Your task to perform on an android device: Open Chrome and go to the settings page Image 0: 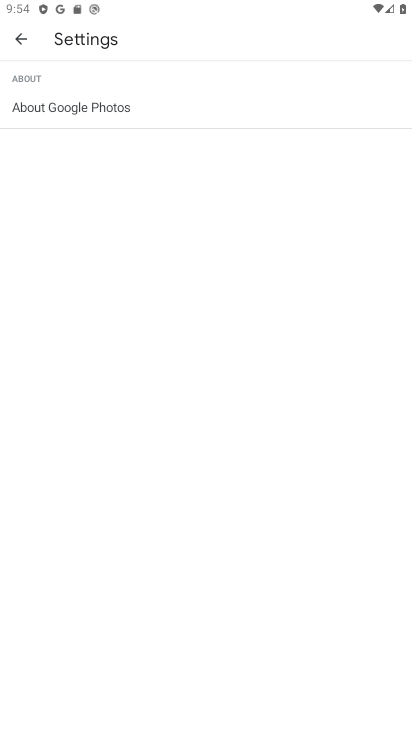
Step 0: drag from (219, 661) to (263, 72)
Your task to perform on an android device: Open Chrome and go to the settings page Image 1: 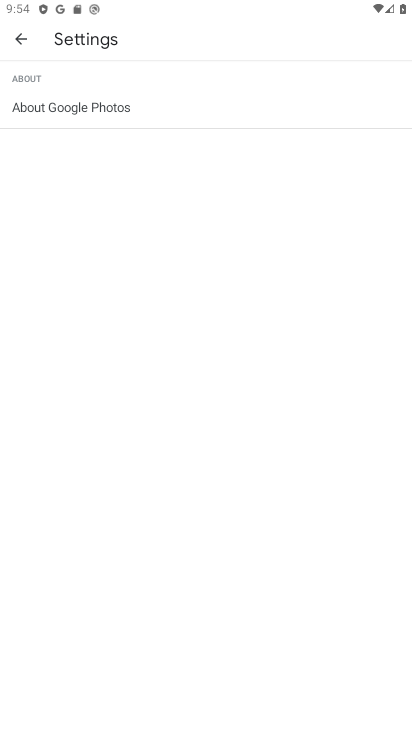
Step 1: press home button
Your task to perform on an android device: Open Chrome and go to the settings page Image 2: 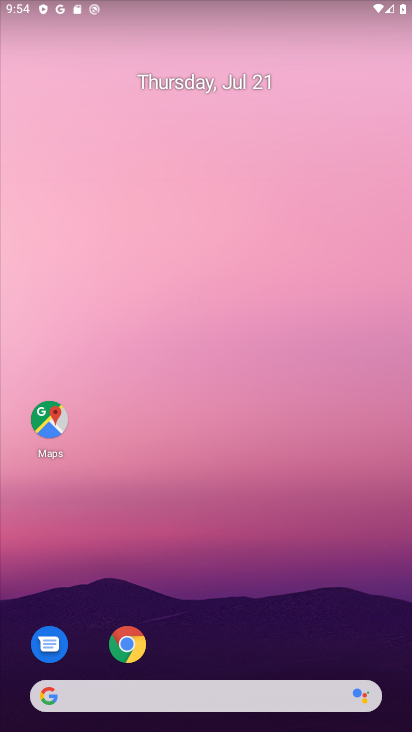
Step 2: drag from (212, 656) to (252, 129)
Your task to perform on an android device: Open Chrome and go to the settings page Image 3: 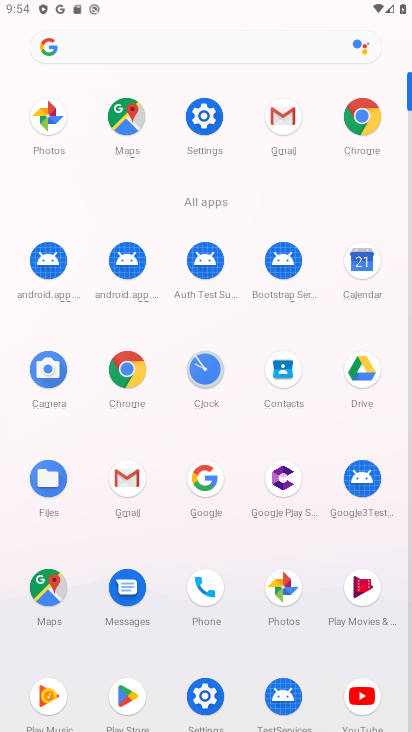
Step 3: click (210, 687)
Your task to perform on an android device: Open Chrome and go to the settings page Image 4: 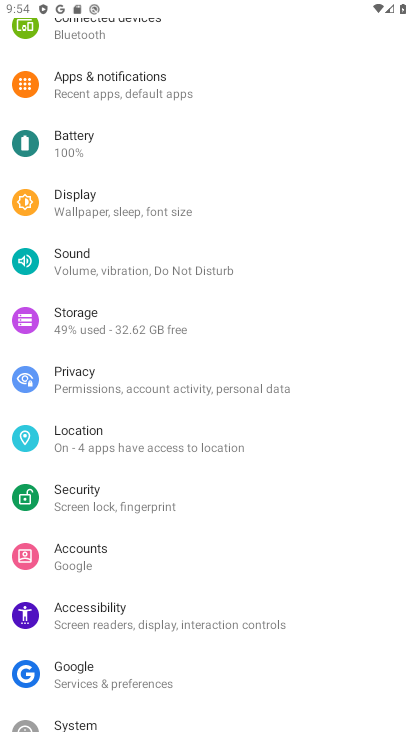
Step 4: drag from (210, 669) to (225, 164)
Your task to perform on an android device: Open Chrome and go to the settings page Image 5: 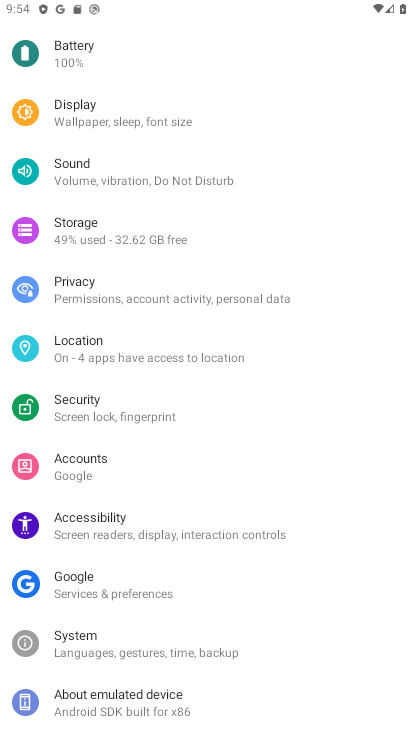
Step 5: press home button
Your task to perform on an android device: Open Chrome and go to the settings page Image 6: 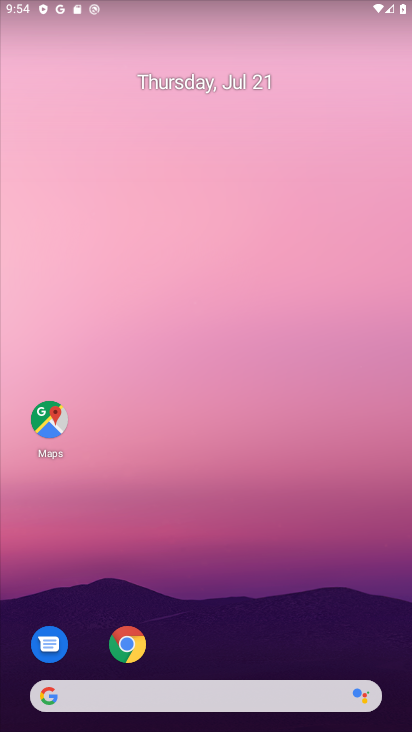
Step 6: click (124, 644)
Your task to perform on an android device: Open Chrome and go to the settings page Image 7: 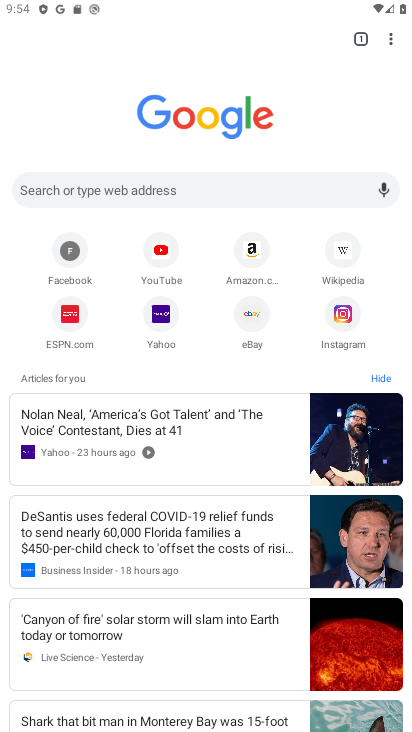
Step 7: click (389, 34)
Your task to perform on an android device: Open Chrome and go to the settings page Image 8: 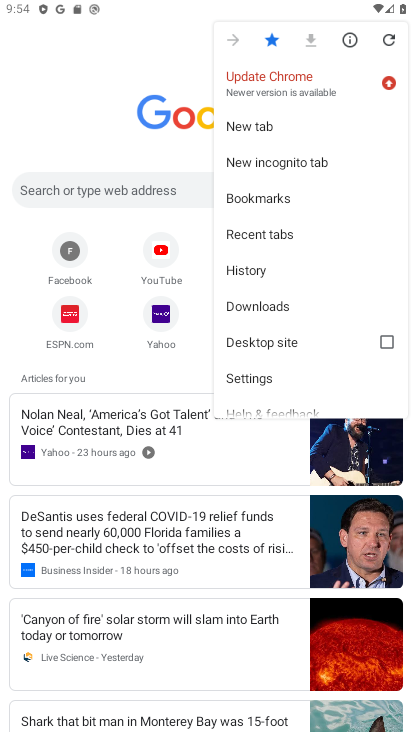
Step 8: click (274, 376)
Your task to perform on an android device: Open Chrome and go to the settings page Image 9: 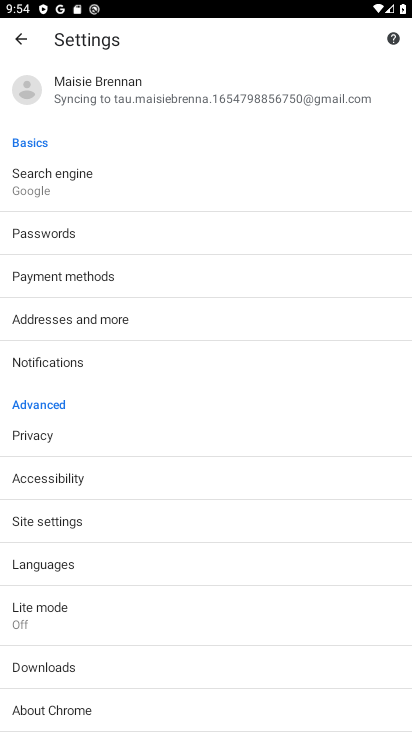
Step 9: task complete